Your task to perform on an android device: Open Wikipedia Image 0: 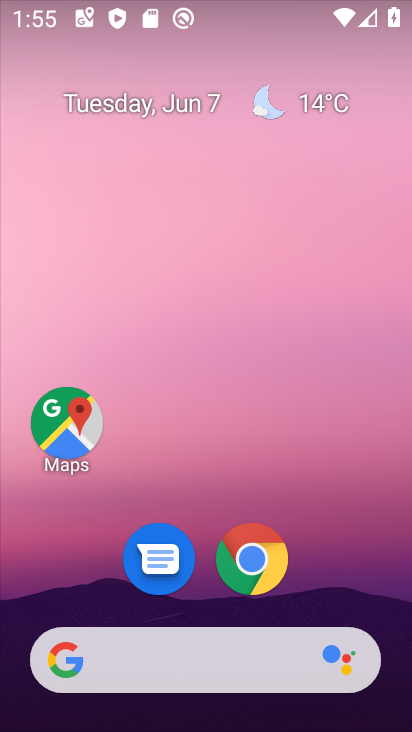
Step 0: drag from (323, 529) to (216, 11)
Your task to perform on an android device: Open Wikipedia Image 1: 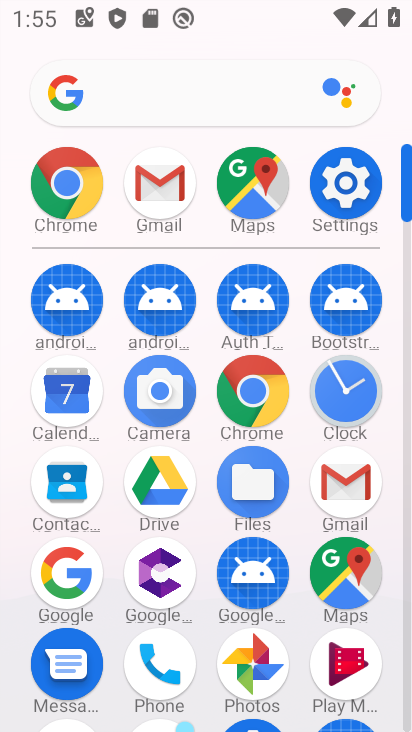
Step 1: click (258, 385)
Your task to perform on an android device: Open Wikipedia Image 2: 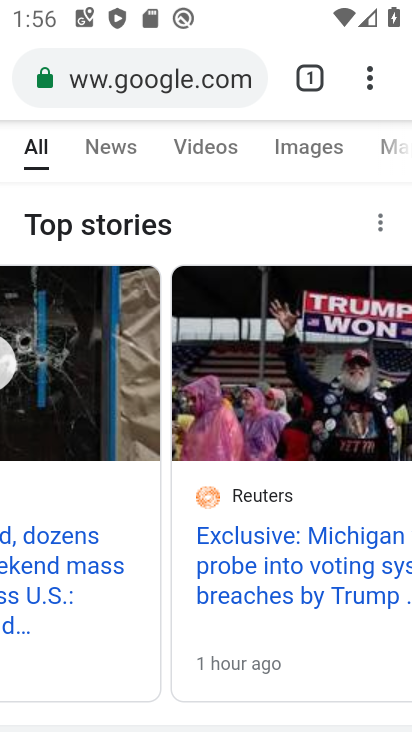
Step 2: click (132, 70)
Your task to perform on an android device: Open Wikipedia Image 3: 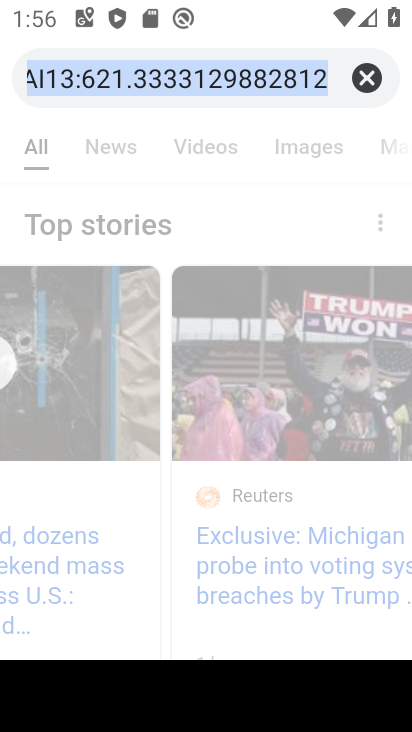
Step 3: click (366, 76)
Your task to perform on an android device: Open Wikipedia Image 4: 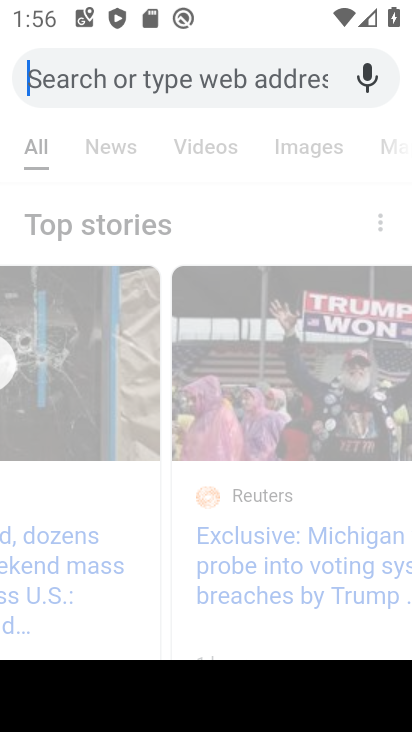
Step 4: type "Wikipedia"
Your task to perform on an android device: Open Wikipedia Image 5: 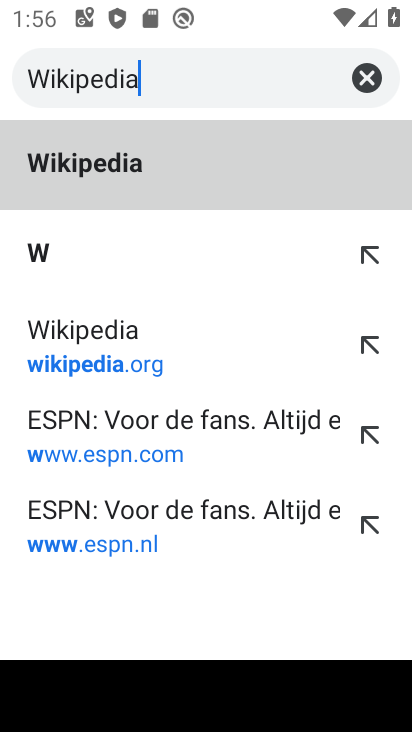
Step 5: type ""
Your task to perform on an android device: Open Wikipedia Image 6: 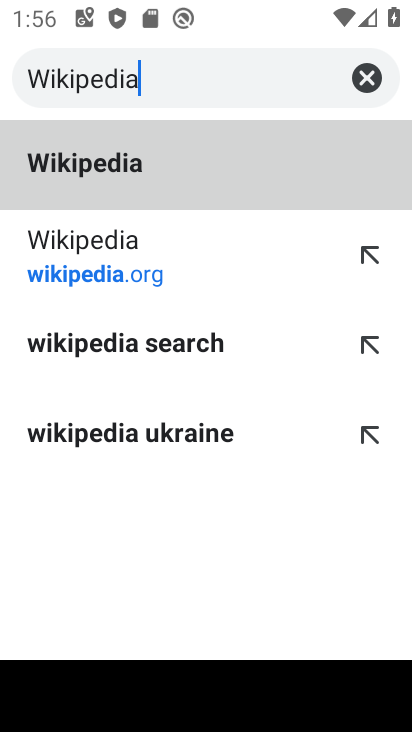
Step 6: click (99, 238)
Your task to perform on an android device: Open Wikipedia Image 7: 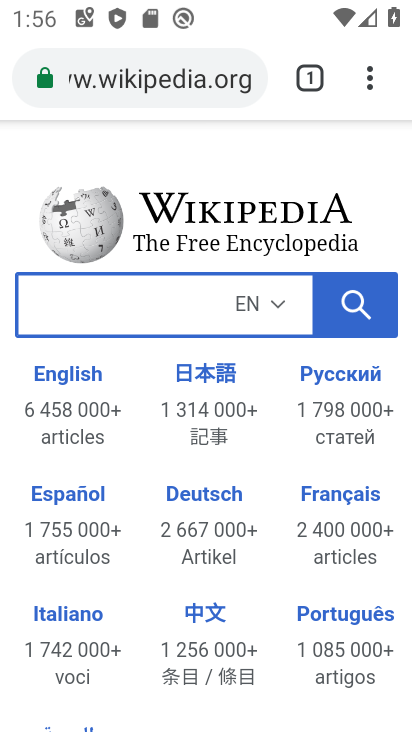
Step 7: task complete